Your task to perform on an android device: What is the news today? Image 0: 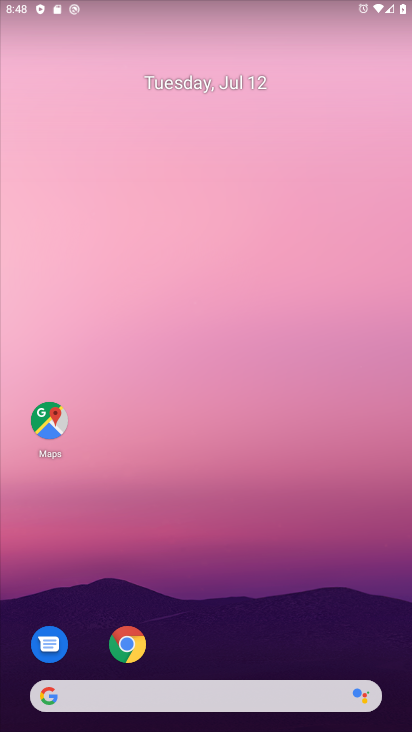
Step 0: click (112, 693)
Your task to perform on an android device: What is the news today? Image 1: 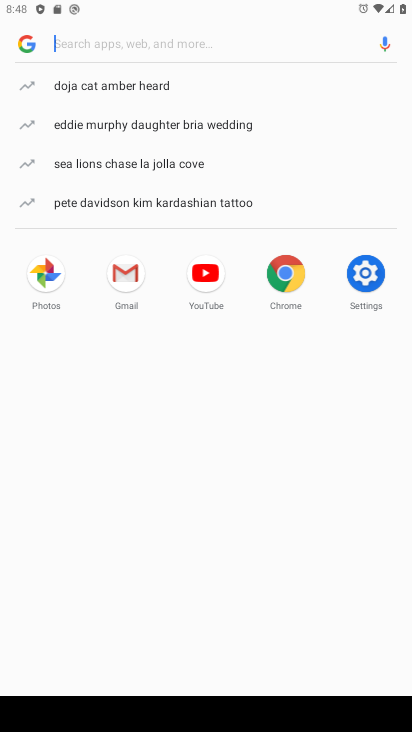
Step 1: type "What is the news today?"
Your task to perform on an android device: What is the news today? Image 2: 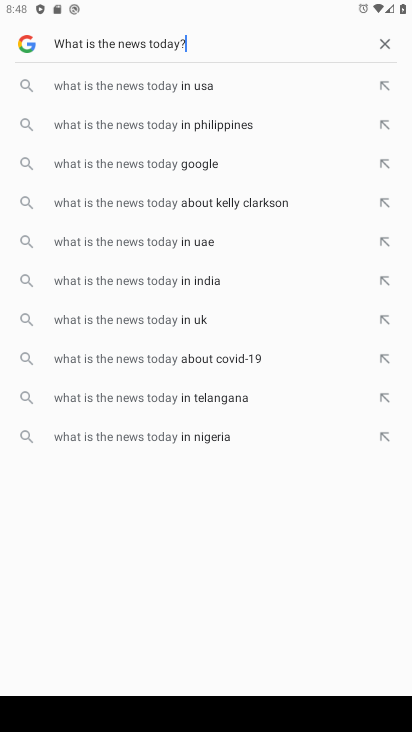
Step 2: type ""
Your task to perform on an android device: What is the news today? Image 3: 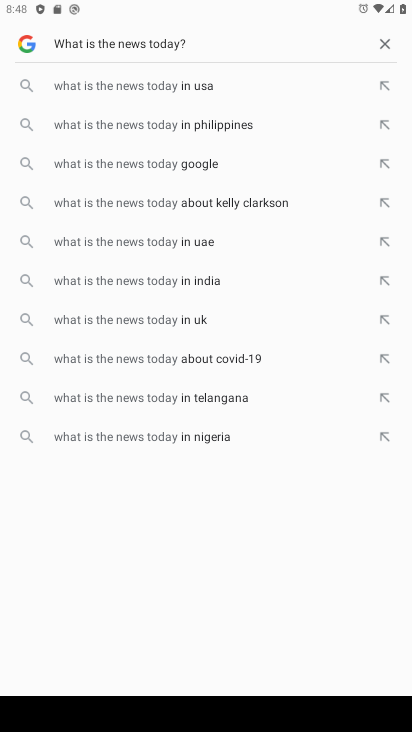
Step 3: type ""
Your task to perform on an android device: What is the news today? Image 4: 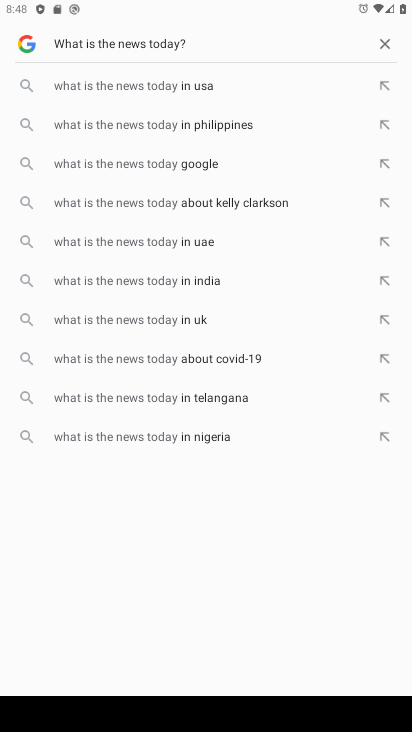
Step 4: task complete